Your task to perform on an android device: Open Maps and search for coffee Image 0: 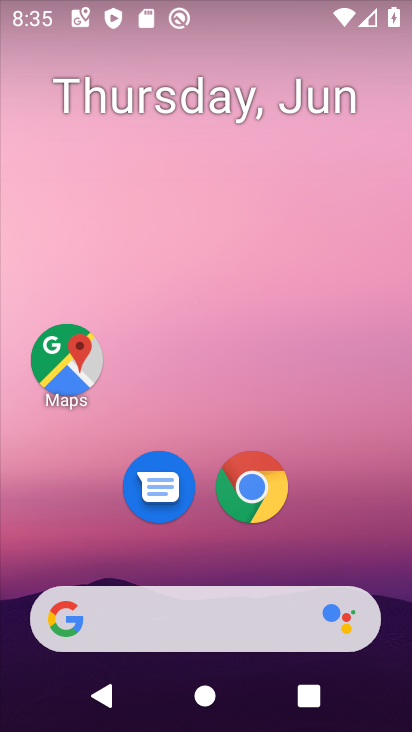
Step 0: drag from (206, 513) to (234, 134)
Your task to perform on an android device: Open Maps and search for coffee Image 1: 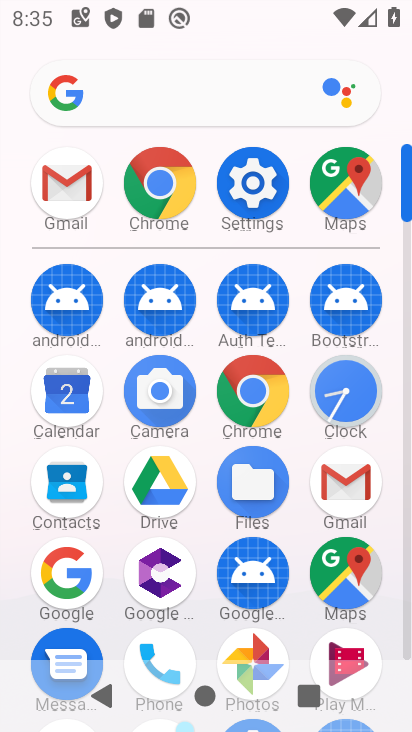
Step 1: click (346, 578)
Your task to perform on an android device: Open Maps and search for coffee Image 2: 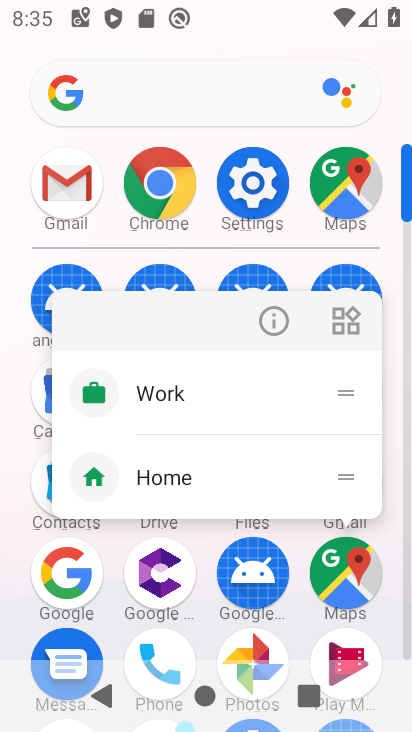
Step 2: click (276, 324)
Your task to perform on an android device: Open Maps and search for coffee Image 3: 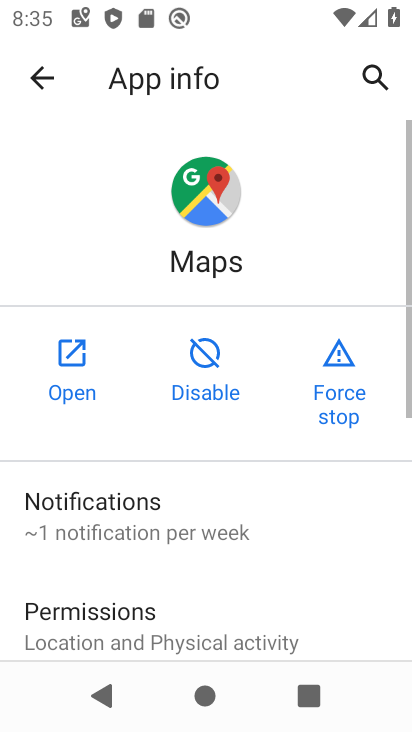
Step 3: click (55, 369)
Your task to perform on an android device: Open Maps and search for coffee Image 4: 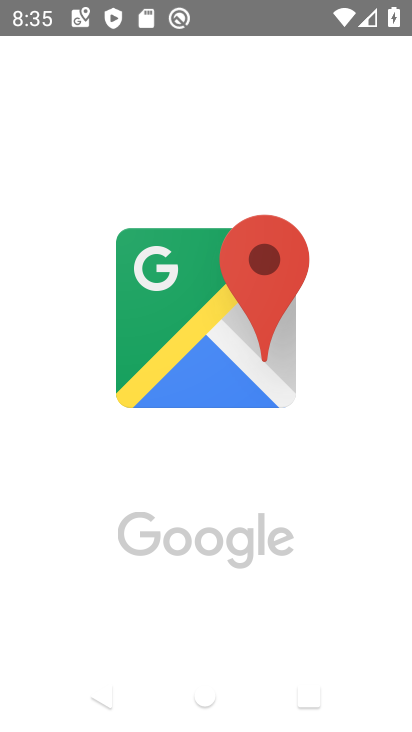
Step 4: drag from (222, 576) to (352, 144)
Your task to perform on an android device: Open Maps and search for coffee Image 5: 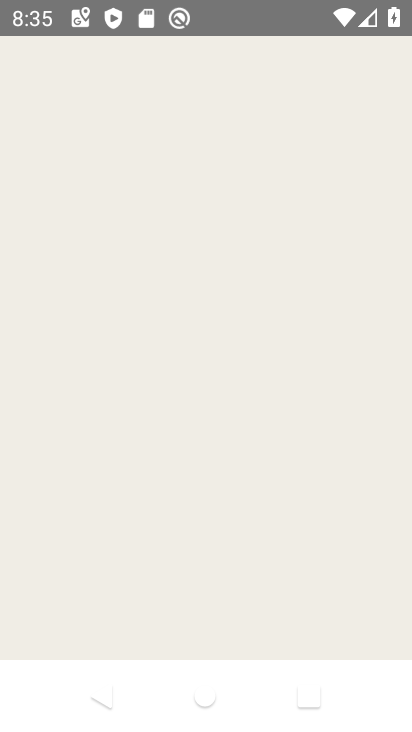
Step 5: drag from (254, 558) to (273, 225)
Your task to perform on an android device: Open Maps and search for coffee Image 6: 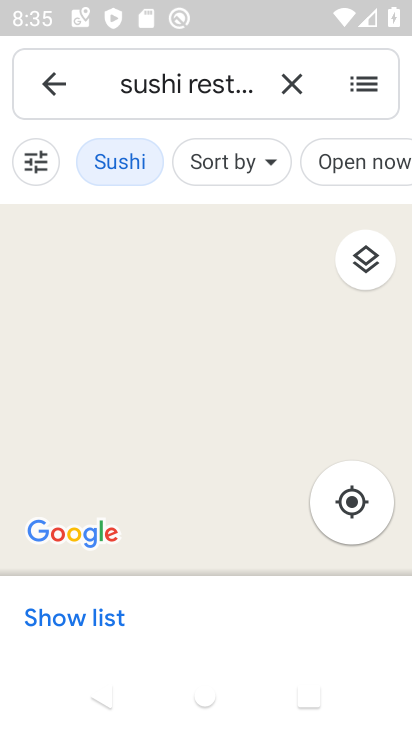
Step 6: drag from (266, 519) to (279, 176)
Your task to perform on an android device: Open Maps and search for coffee Image 7: 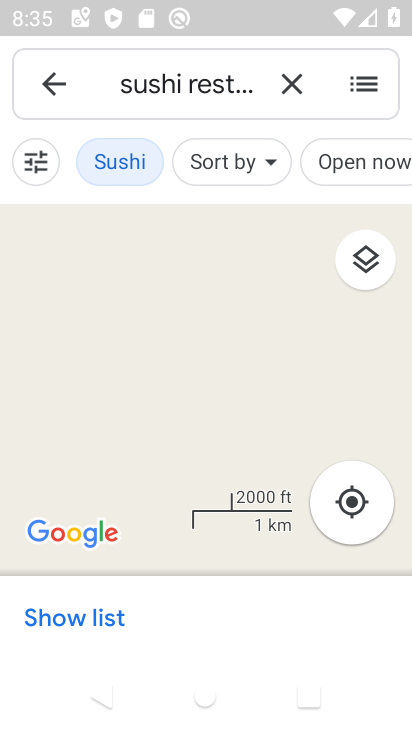
Step 7: click (298, 78)
Your task to perform on an android device: Open Maps and search for coffee Image 8: 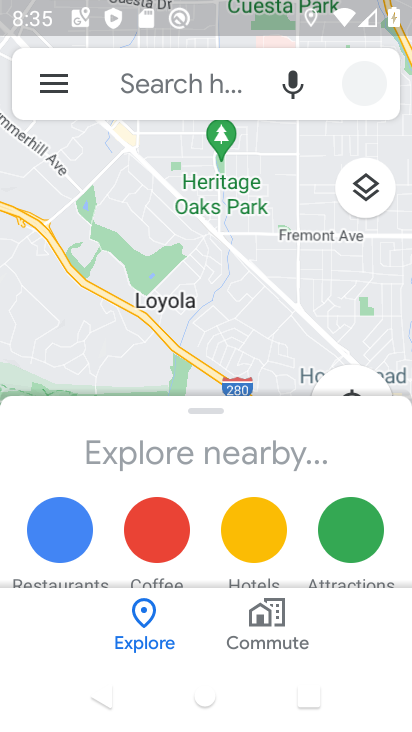
Step 8: click (139, 97)
Your task to perform on an android device: Open Maps and search for coffee Image 9: 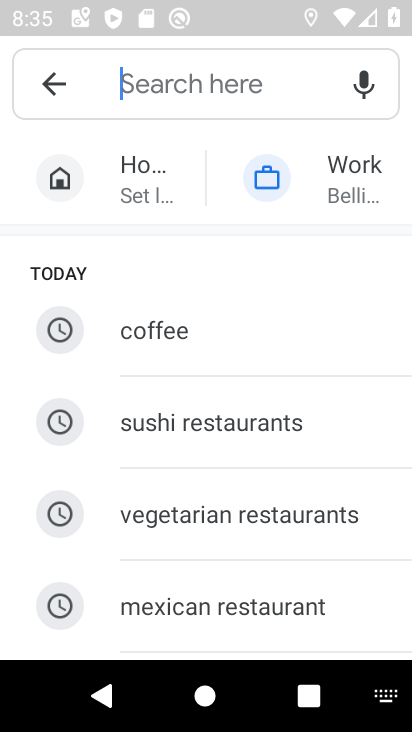
Step 9: click (169, 331)
Your task to perform on an android device: Open Maps and search for coffee Image 10: 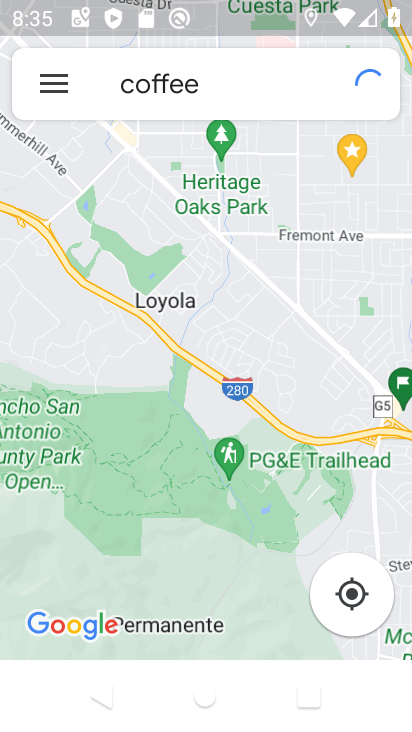
Step 10: task complete